Your task to perform on an android device: change timer sound Image 0: 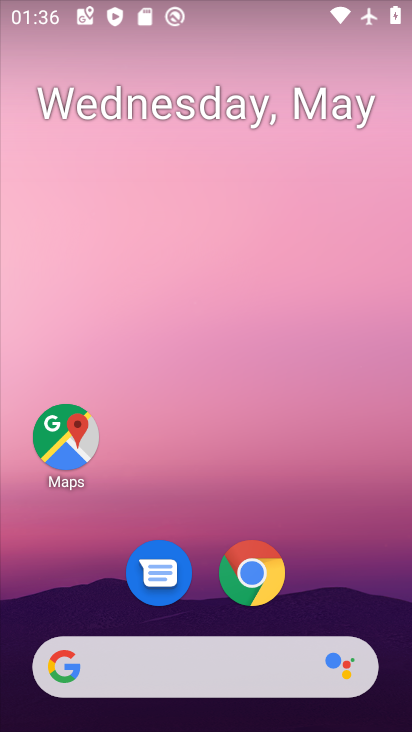
Step 0: drag from (361, 584) to (323, 338)
Your task to perform on an android device: change timer sound Image 1: 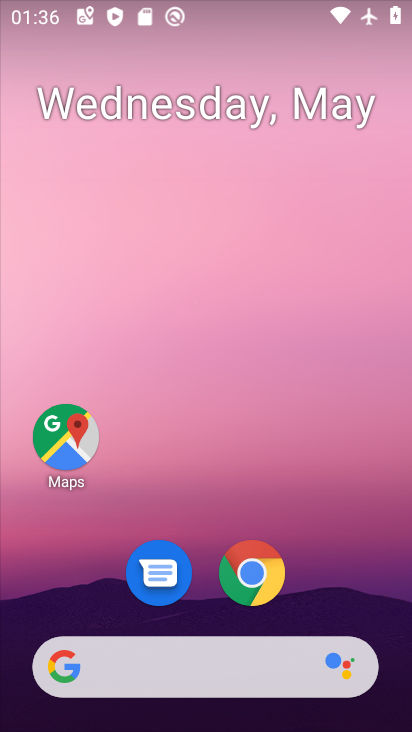
Step 1: drag from (314, 568) to (289, 186)
Your task to perform on an android device: change timer sound Image 2: 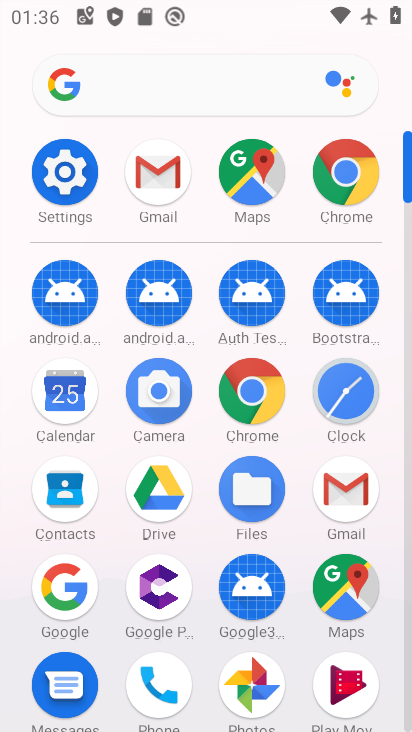
Step 2: click (74, 159)
Your task to perform on an android device: change timer sound Image 3: 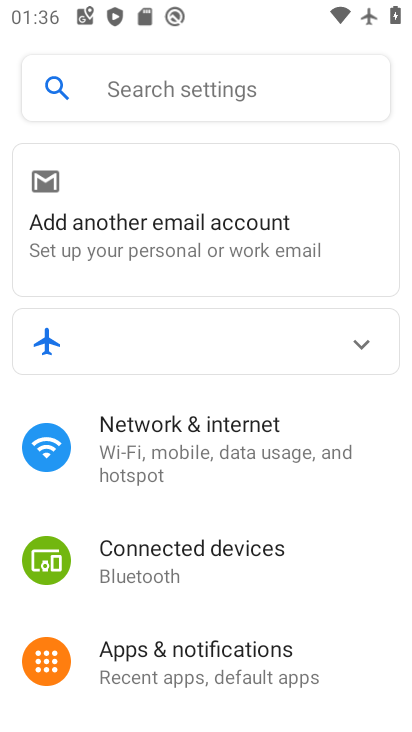
Step 3: press home button
Your task to perform on an android device: change timer sound Image 4: 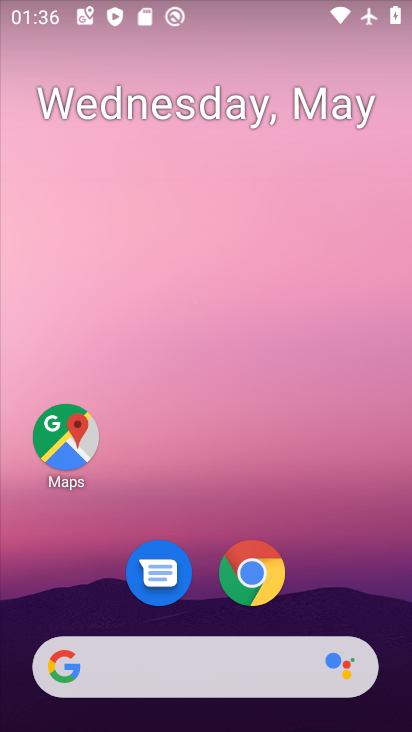
Step 4: drag from (326, 556) to (321, 231)
Your task to perform on an android device: change timer sound Image 5: 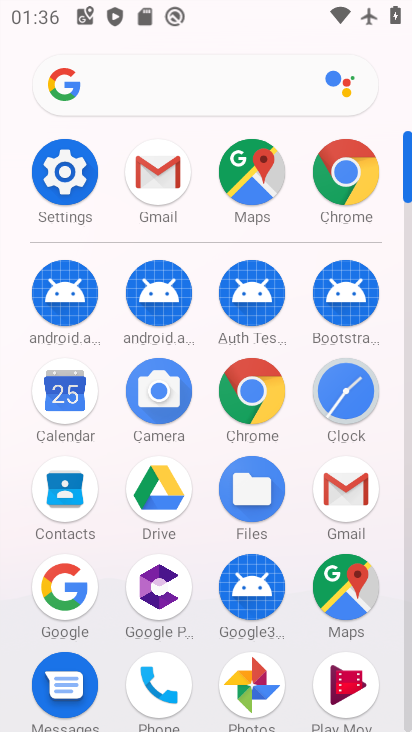
Step 5: click (340, 396)
Your task to perform on an android device: change timer sound Image 6: 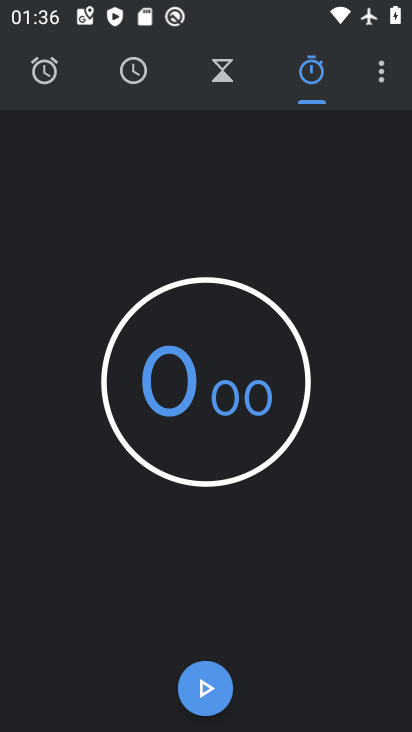
Step 6: click (389, 74)
Your task to perform on an android device: change timer sound Image 7: 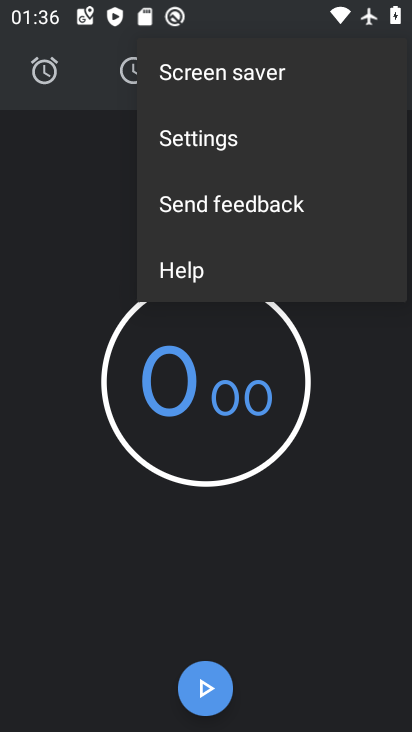
Step 7: click (244, 157)
Your task to perform on an android device: change timer sound Image 8: 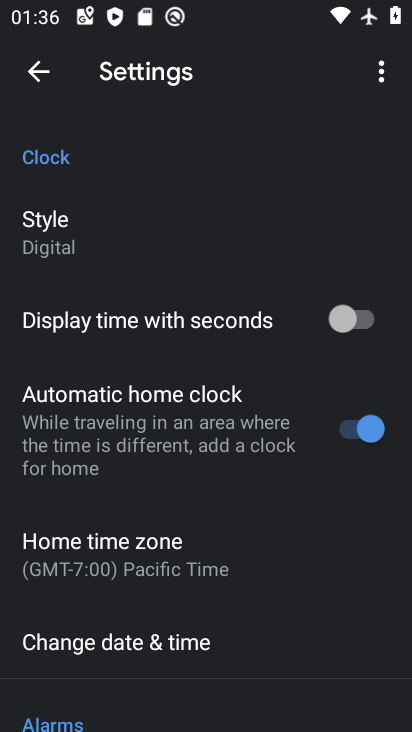
Step 8: drag from (199, 622) to (217, 273)
Your task to perform on an android device: change timer sound Image 9: 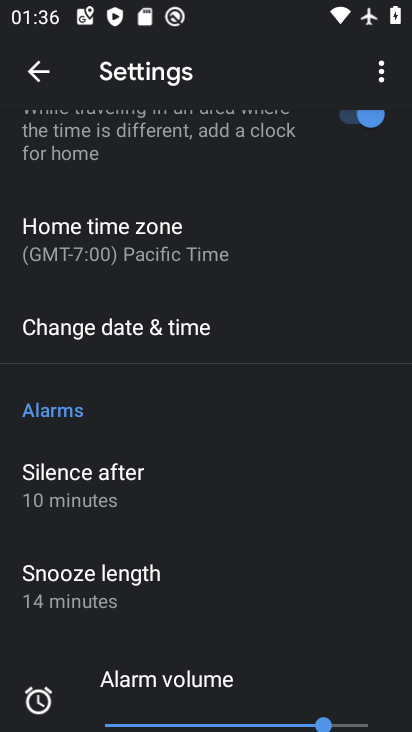
Step 9: drag from (154, 624) to (239, 241)
Your task to perform on an android device: change timer sound Image 10: 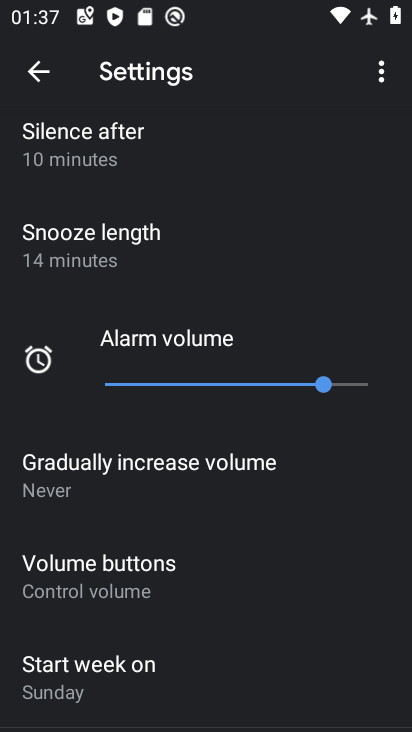
Step 10: drag from (161, 630) to (232, 282)
Your task to perform on an android device: change timer sound Image 11: 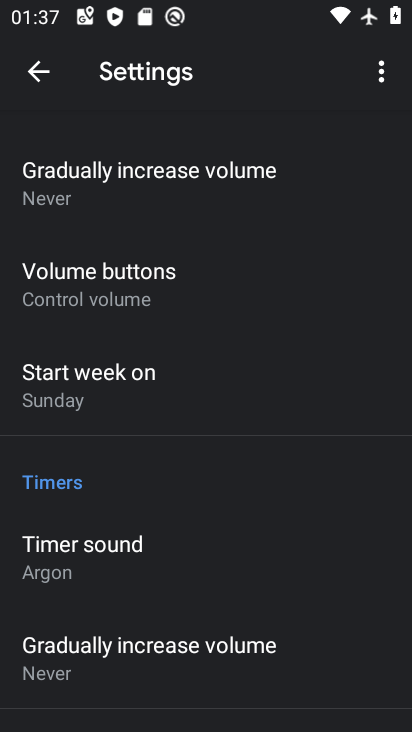
Step 11: click (137, 549)
Your task to perform on an android device: change timer sound Image 12: 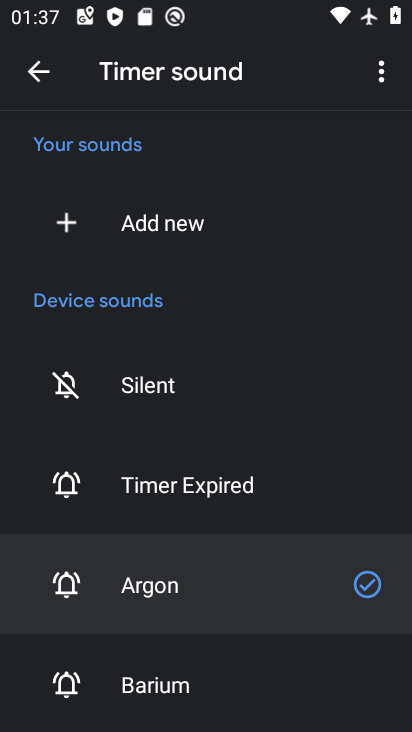
Step 12: drag from (152, 646) to (217, 291)
Your task to perform on an android device: change timer sound Image 13: 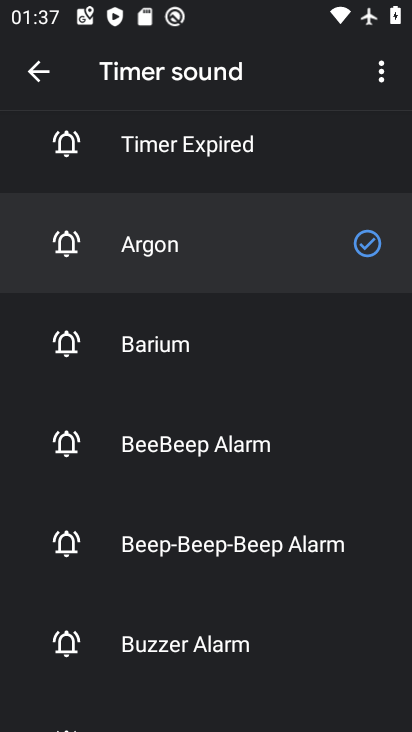
Step 13: click (178, 578)
Your task to perform on an android device: change timer sound Image 14: 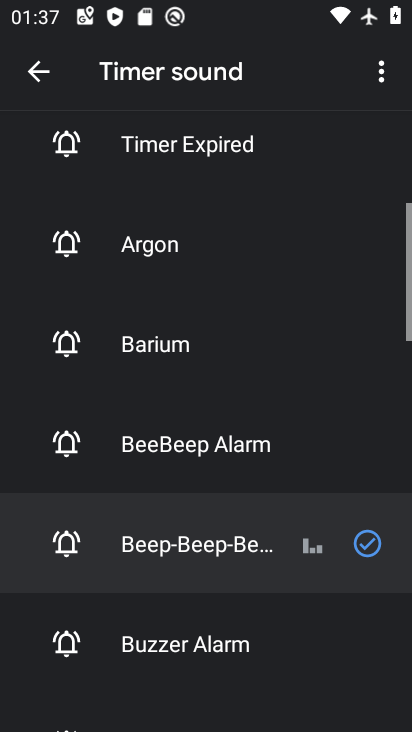
Step 14: task complete